Your task to perform on an android device: Open Google Chrome and open the bookmarks view Image 0: 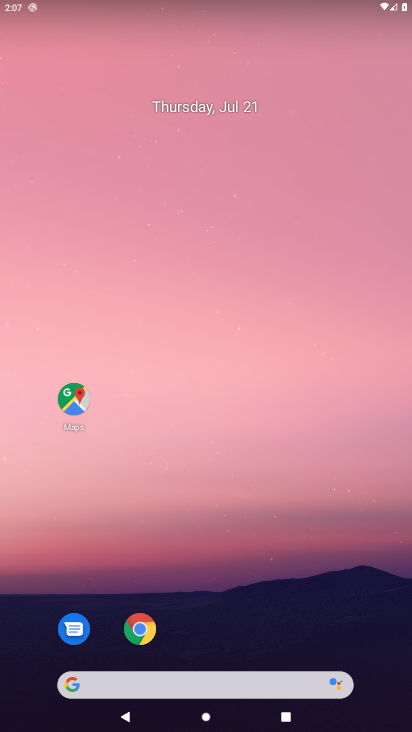
Step 0: click (159, 195)
Your task to perform on an android device: Open Google Chrome and open the bookmarks view Image 1: 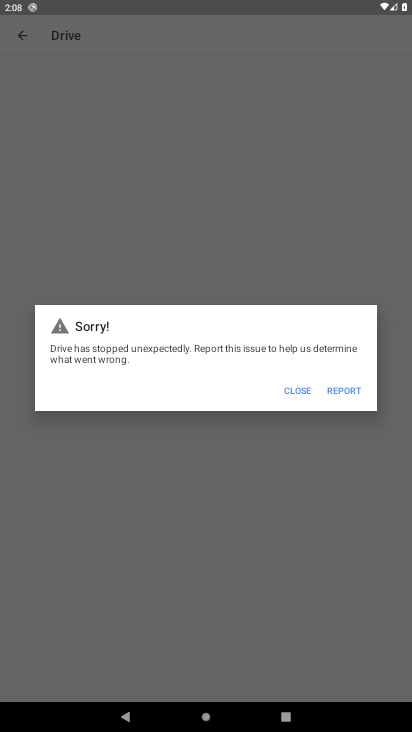
Step 1: click (283, 175)
Your task to perform on an android device: Open Google Chrome and open the bookmarks view Image 2: 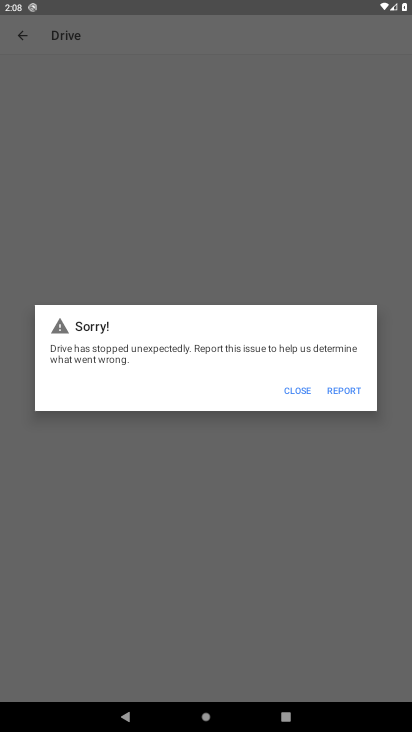
Step 2: press home button
Your task to perform on an android device: Open Google Chrome and open the bookmarks view Image 3: 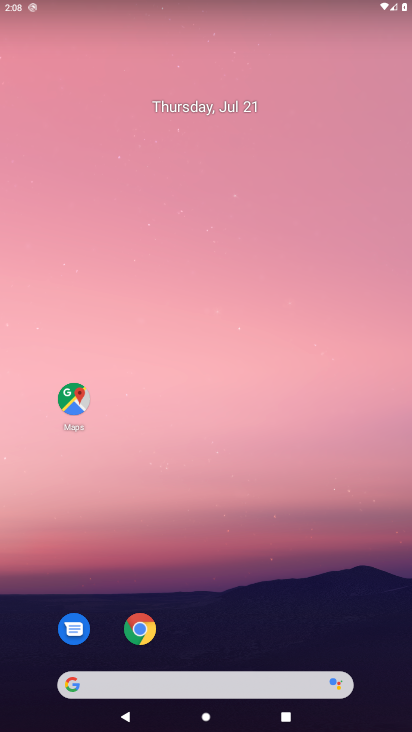
Step 3: click (215, 31)
Your task to perform on an android device: Open Google Chrome and open the bookmarks view Image 4: 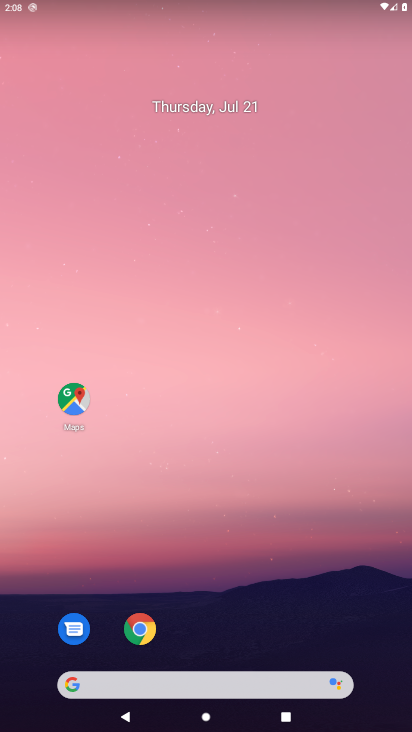
Step 4: click (151, 621)
Your task to perform on an android device: Open Google Chrome and open the bookmarks view Image 5: 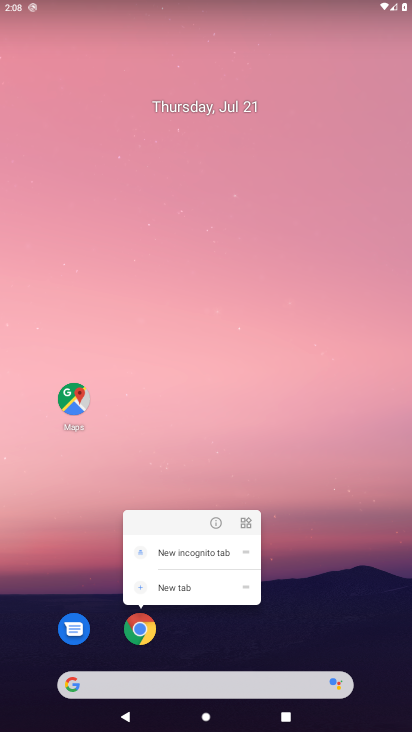
Step 5: click (134, 634)
Your task to perform on an android device: Open Google Chrome and open the bookmarks view Image 6: 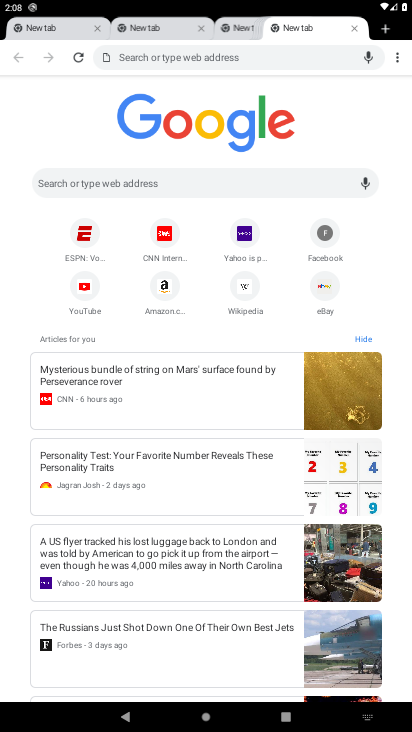
Step 6: click (394, 55)
Your task to perform on an android device: Open Google Chrome and open the bookmarks view Image 7: 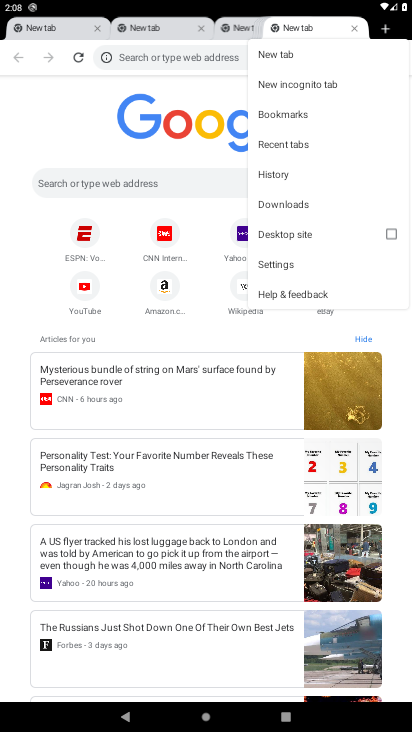
Step 7: click (282, 110)
Your task to perform on an android device: Open Google Chrome and open the bookmarks view Image 8: 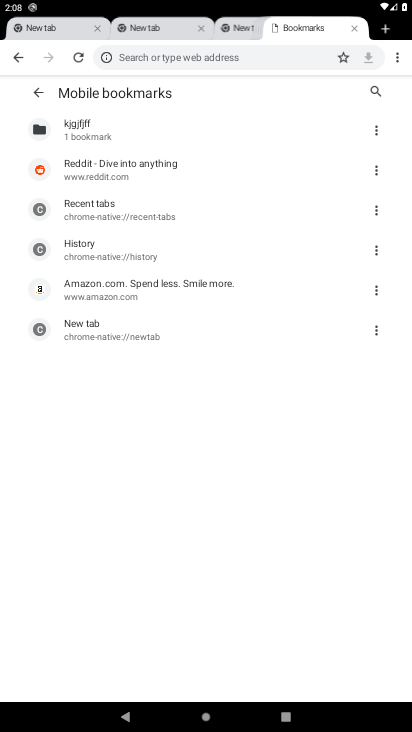
Step 8: task complete